Your task to perform on an android device: change your default location settings in chrome Image 0: 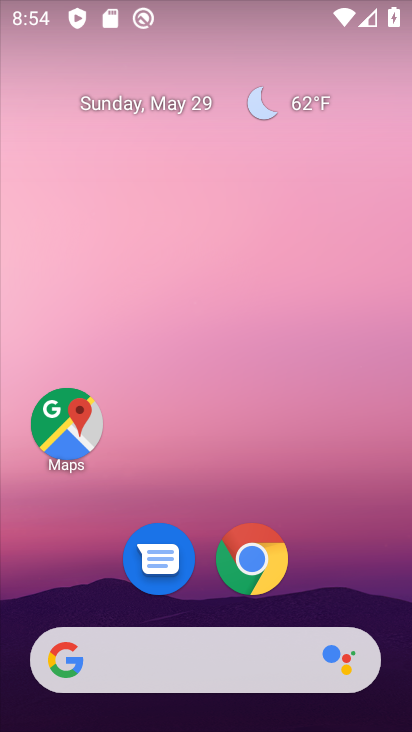
Step 0: drag from (341, 573) to (290, 223)
Your task to perform on an android device: change your default location settings in chrome Image 1: 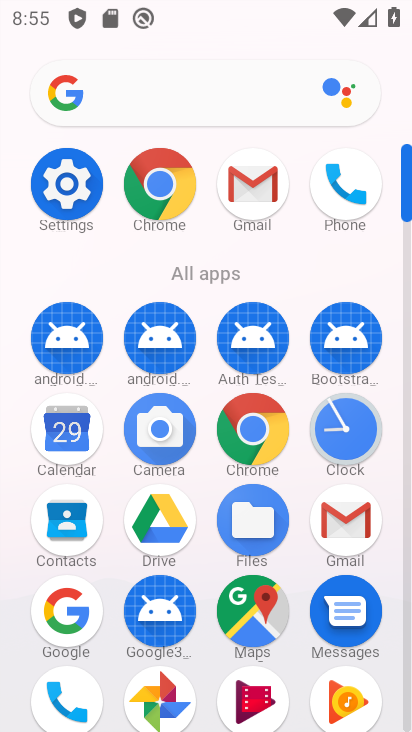
Step 1: click (245, 423)
Your task to perform on an android device: change your default location settings in chrome Image 2: 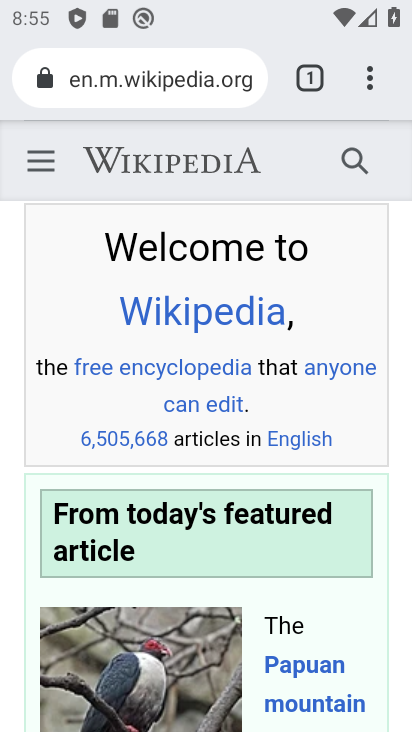
Step 2: click (370, 76)
Your task to perform on an android device: change your default location settings in chrome Image 3: 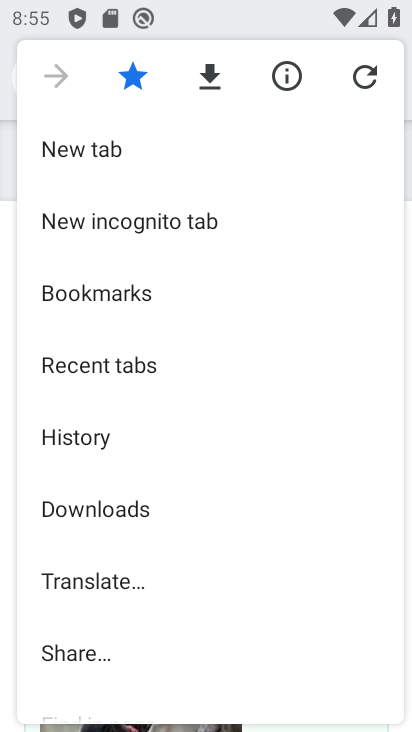
Step 3: drag from (183, 569) to (233, 249)
Your task to perform on an android device: change your default location settings in chrome Image 4: 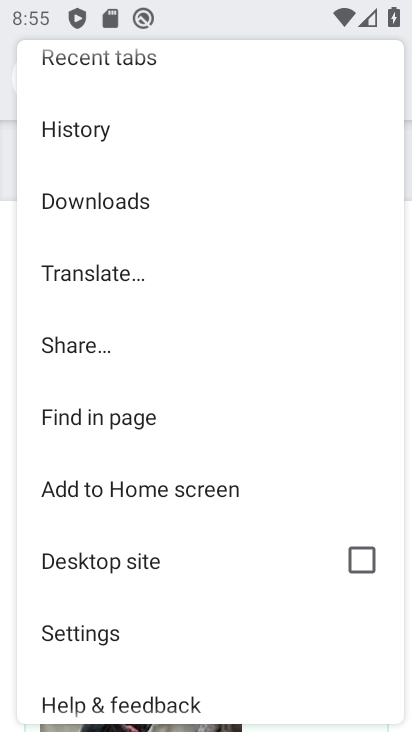
Step 4: click (132, 625)
Your task to perform on an android device: change your default location settings in chrome Image 5: 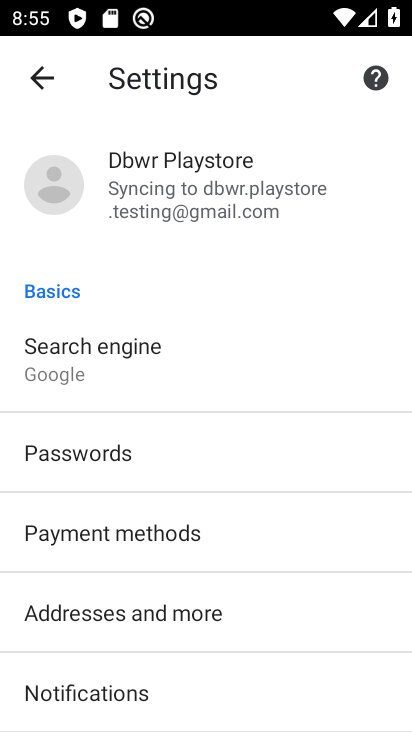
Step 5: click (101, 354)
Your task to perform on an android device: change your default location settings in chrome Image 6: 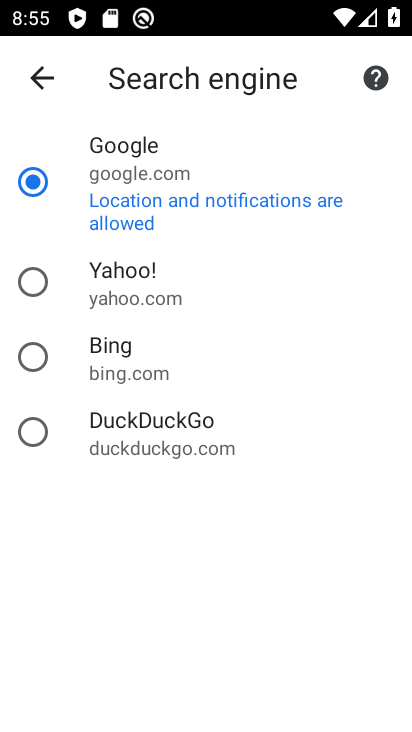
Step 6: click (103, 356)
Your task to perform on an android device: change your default location settings in chrome Image 7: 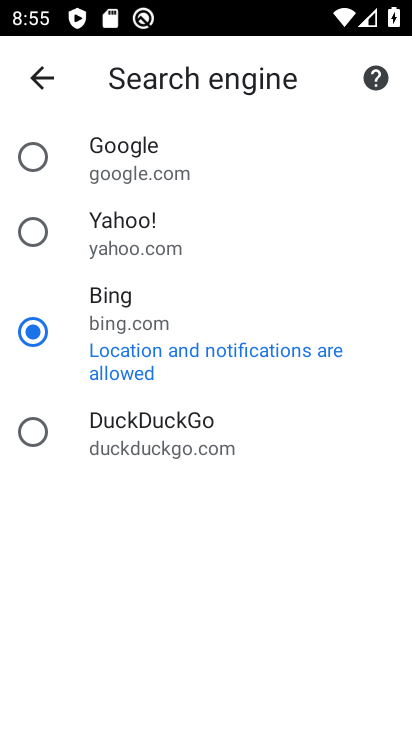
Step 7: task complete